Your task to perform on an android device: Go to Google maps Image 0: 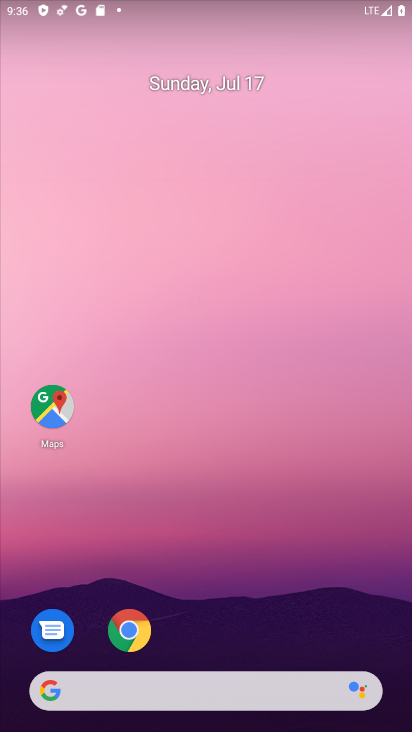
Step 0: press home button
Your task to perform on an android device: Go to Google maps Image 1: 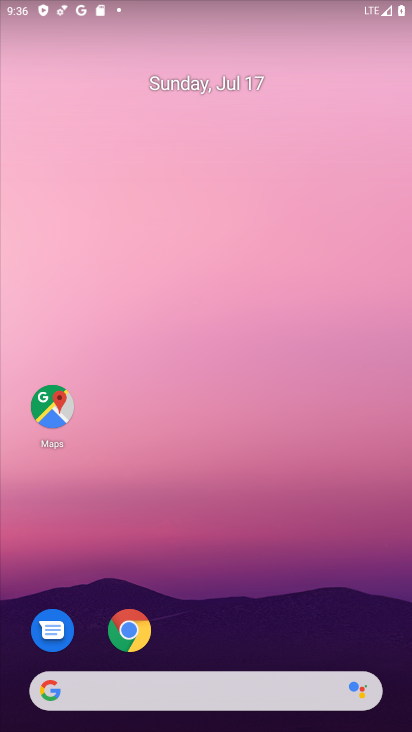
Step 1: click (47, 403)
Your task to perform on an android device: Go to Google maps Image 2: 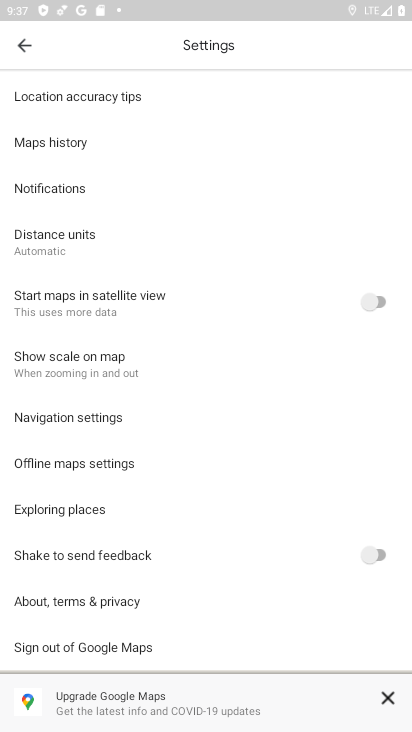
Step 2: click (34, 48)
Your task to perform on an android device: Go to Google maps Image 3: 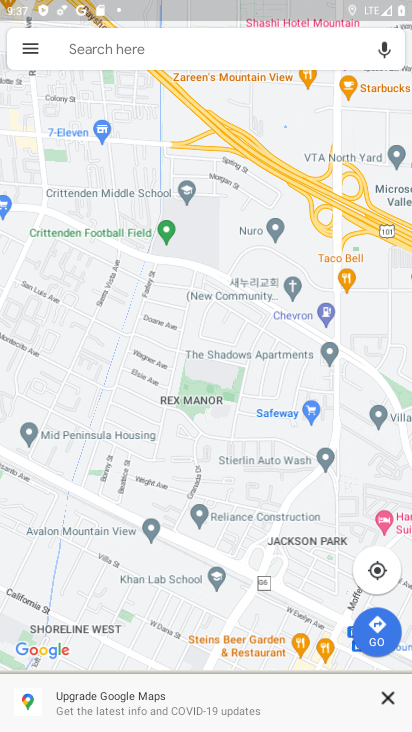
Step 3: task complete